Your task to perform on an android device: Open Google Chrome and open the bookmarks view Image 0: 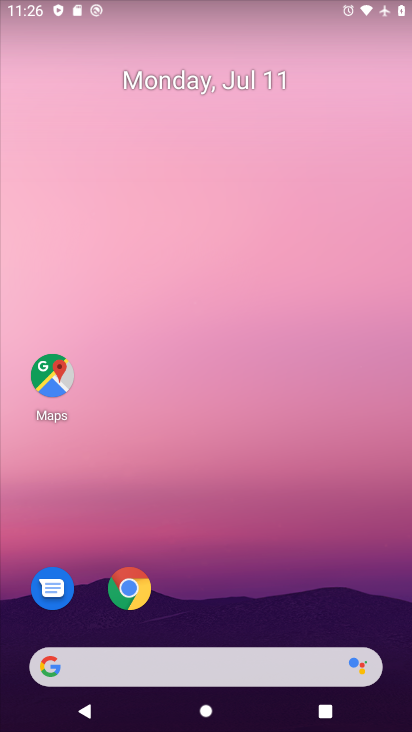
Step 0: click (126, 597)
Your task to perform on an android device: Open Google Chrome and open the bookmarks view Image 1: 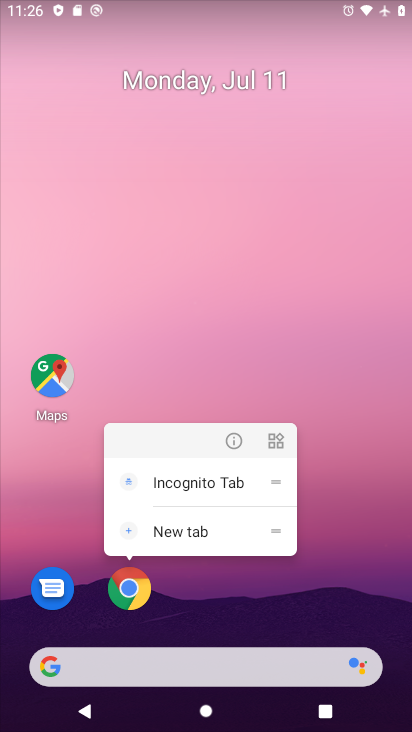
Step 1: click (122, 586)
Your task to perform on an android device: Open Google Chrome and open the bookmarks view Image 2: 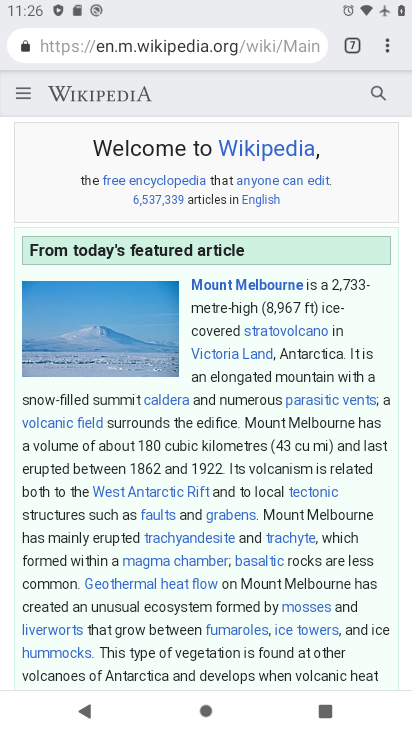
Step 2: task complete